Your task to perform on an android device: turn on notifications settings in the gmail app Image 0: 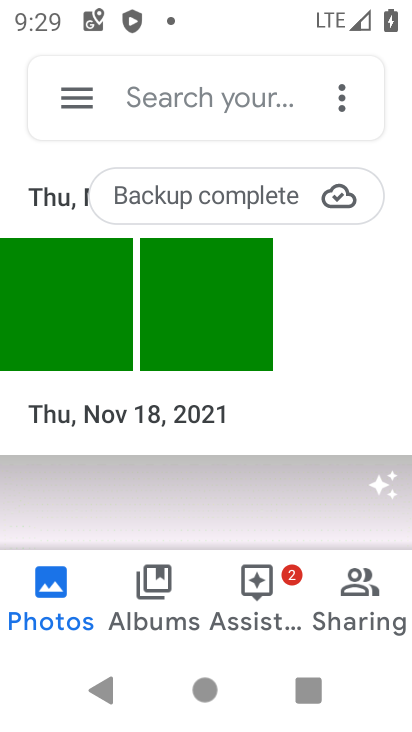
Step 0: press home button
Your task to perform on an android device: turn on notifications settings in the gmail app Image 1: 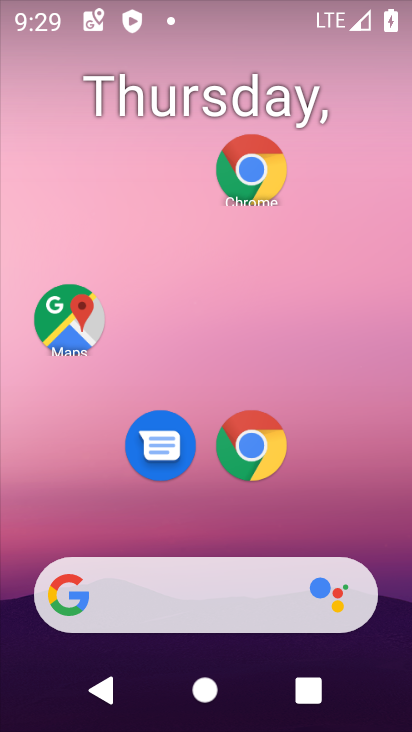
Step 1: drag from (203, 551) to (204, 56)
Your task to perform on an android device: turn on notifications settings in the gmail app Image 2: 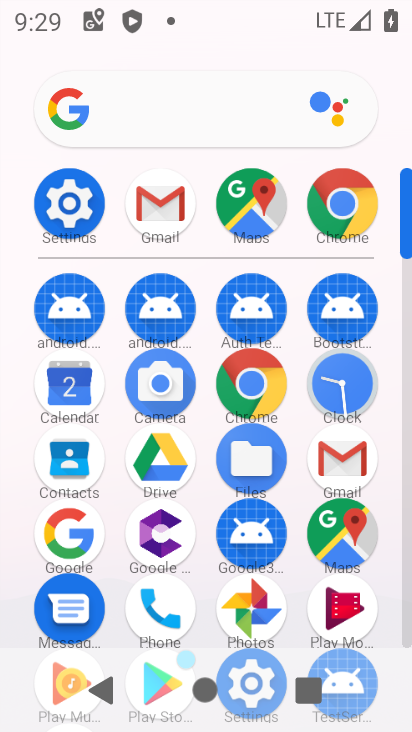
Step 2: click (145, 206)
Your task to perform on an android device: turn on notifications settings in the gmail app Image 3: 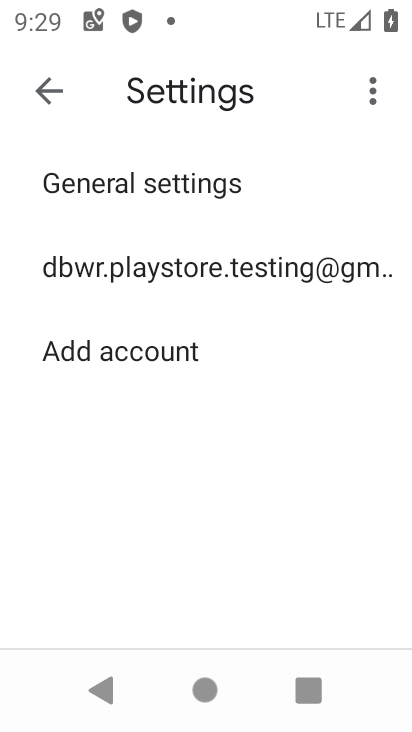
Step 3: click (139, 168)
Your task to perform on an android device: turn on notifications settings in the gmail app Image 4: 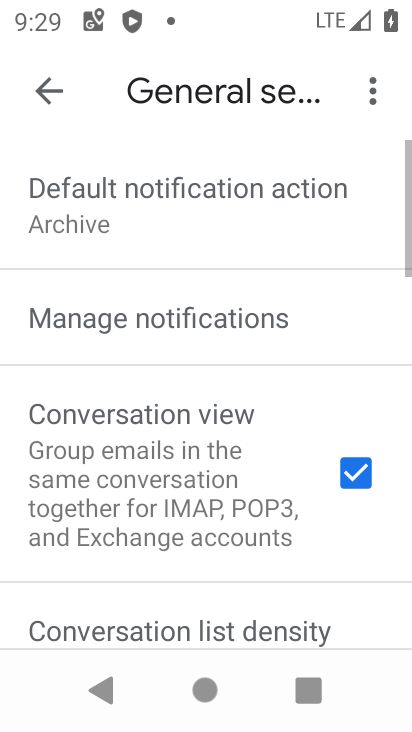
Step 4: click (198, 318)
Your task to perform on an android device: turn on notifications settings in the gmail app Image 5: 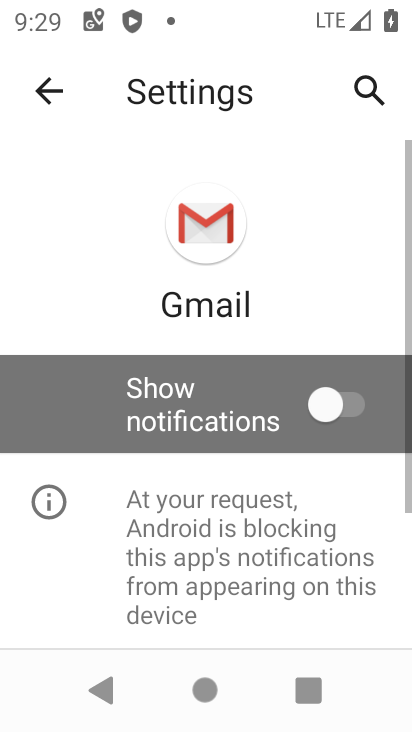
Step 5: click (335, 401)
Your task to perform on an android device: turn on notifications settings in the gmail app Image 6: 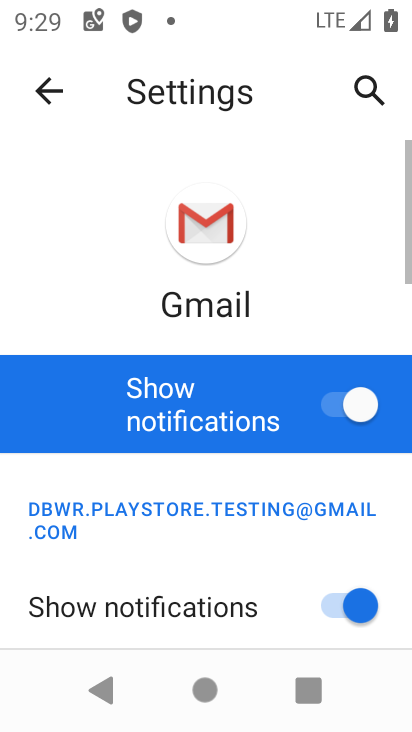
Step 6: task complete